Your task to perform on an android device: Open network settings Image 0: 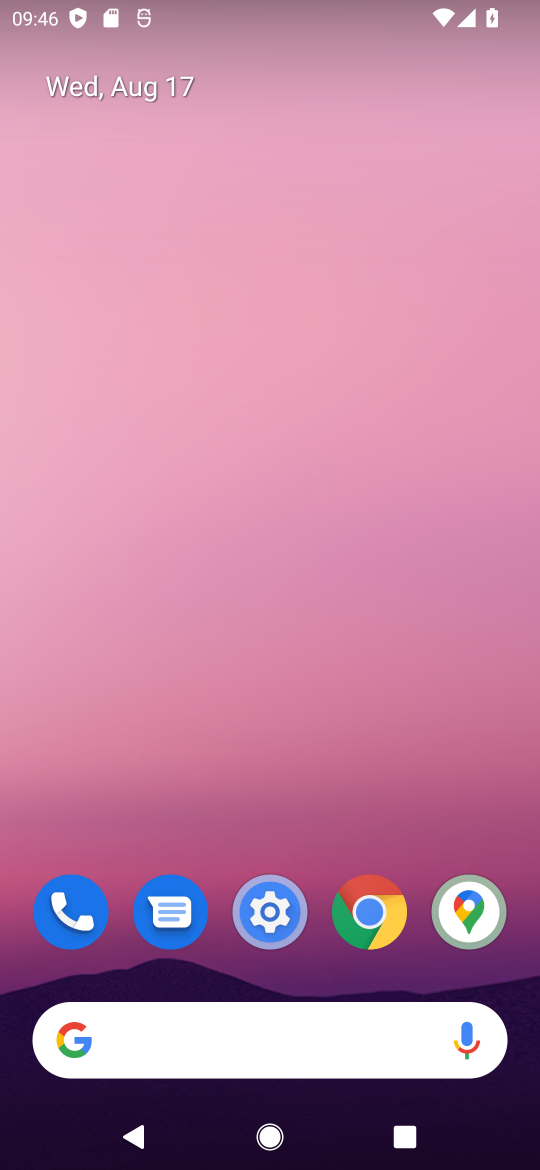
Step 0: drag from (291, 1014) to (301, 178)
Your task to perform on an android device: Open network settings Image 1: 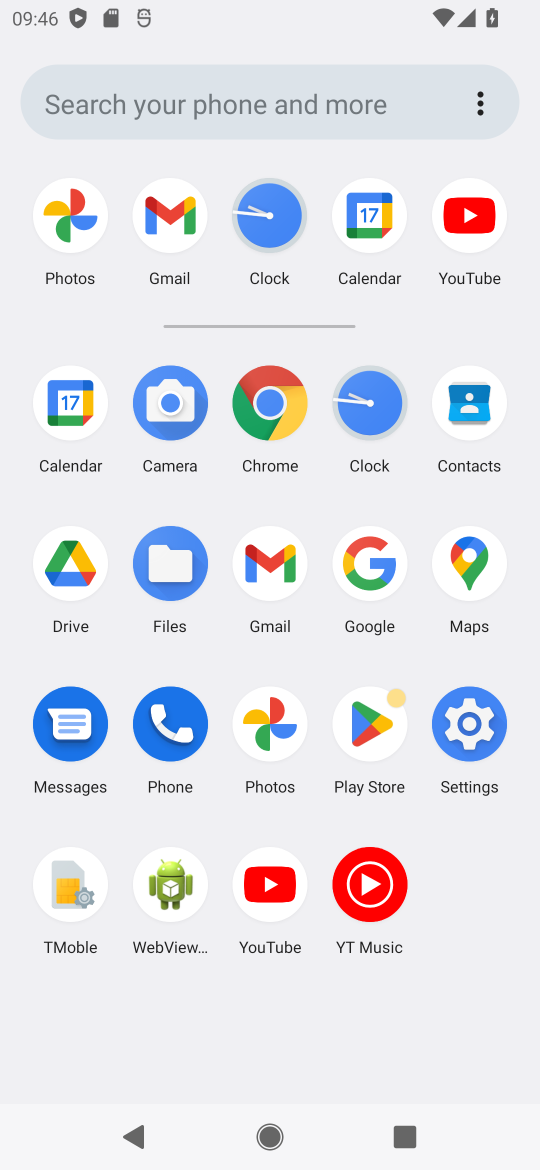
Step 1: click (457, 746)
Your task to perform on an android device: Open network settings Image 2: 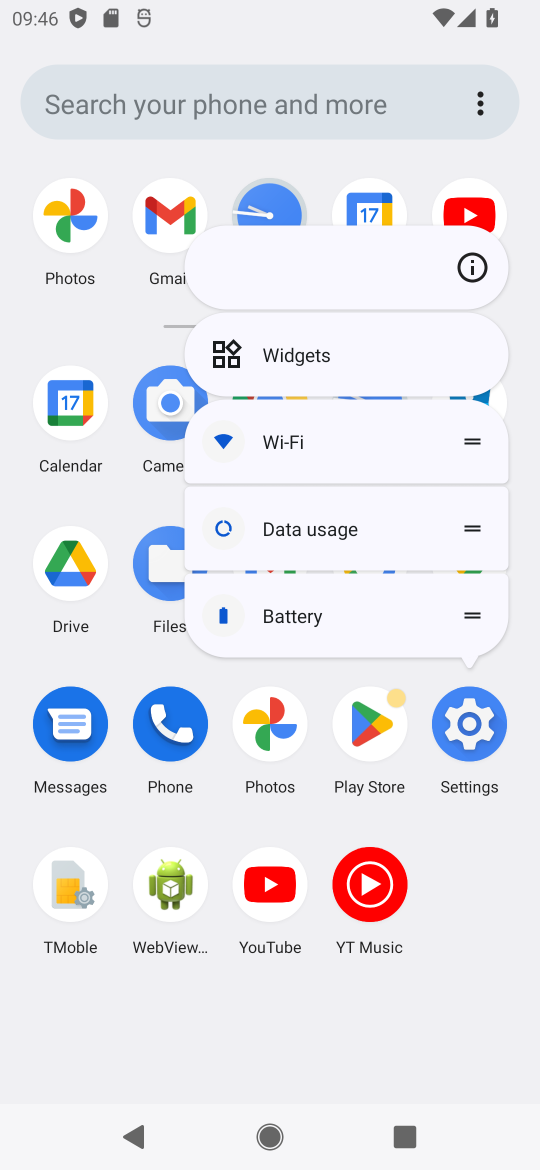
Step 2: click (465, 725)
Your task to perform on an android device: Open network settings Image 3: 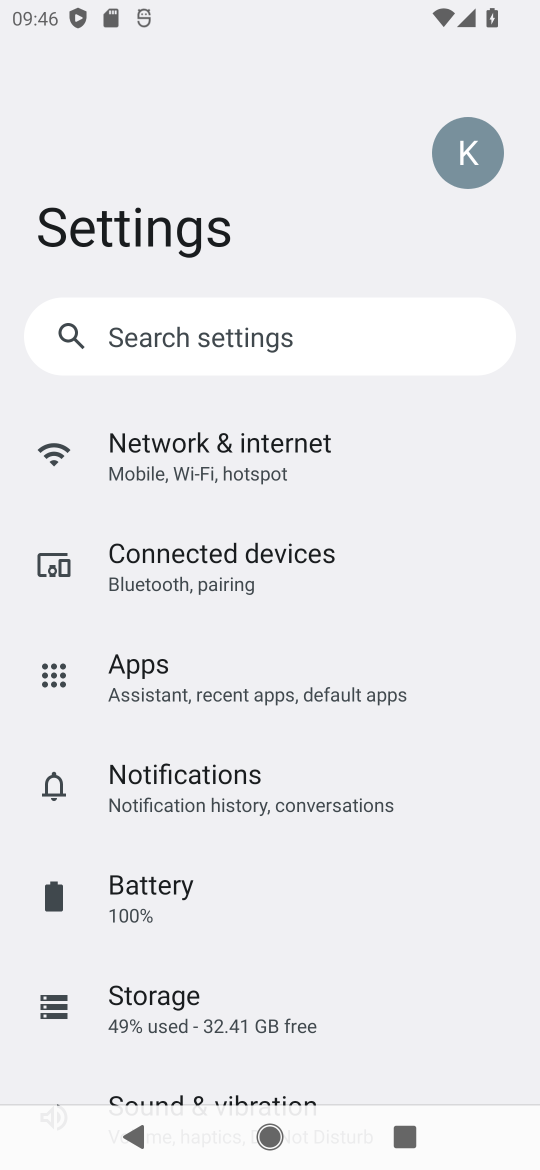
Step 3: click (213, 446)
Your task to perform on an android device: Open network settings Image 4: 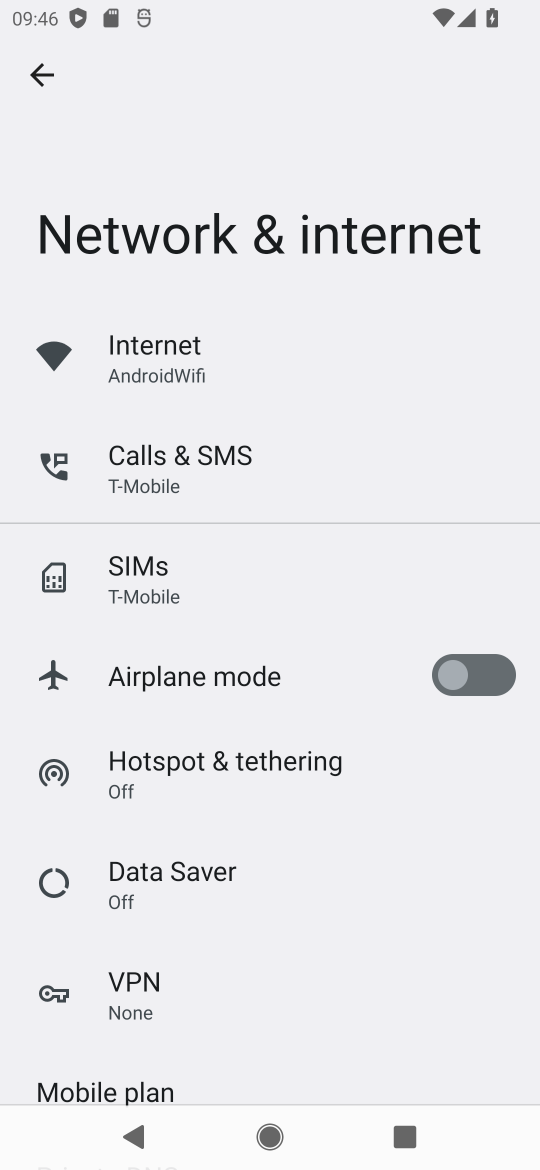
Step 4: task complete